Your task to perform on an android device: turn off translation in the chrome app Image 0: 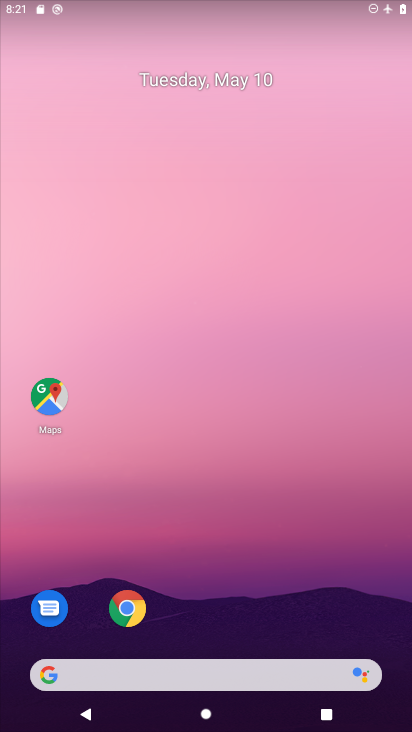
Step 0: drag from (258, 616) to (257, 294)
Your task to perform on an android device: turn off translation in the chrome app Image 1: 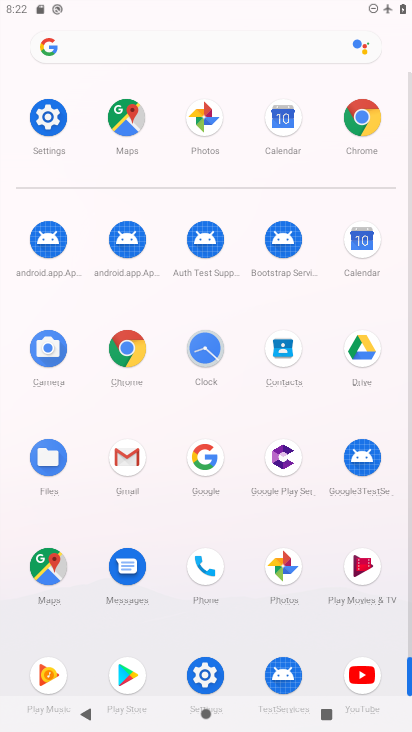
Step 1: click (366, 111)
Your task to perform on an android device: turn off translation in the chrome app Image 2: 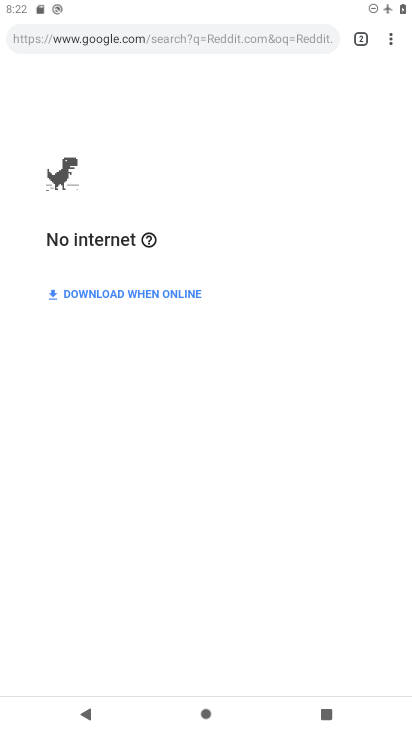
Step 2: click (385, 35)
Your task to perform on an android device: turn off translation in the chrome app Image 3: 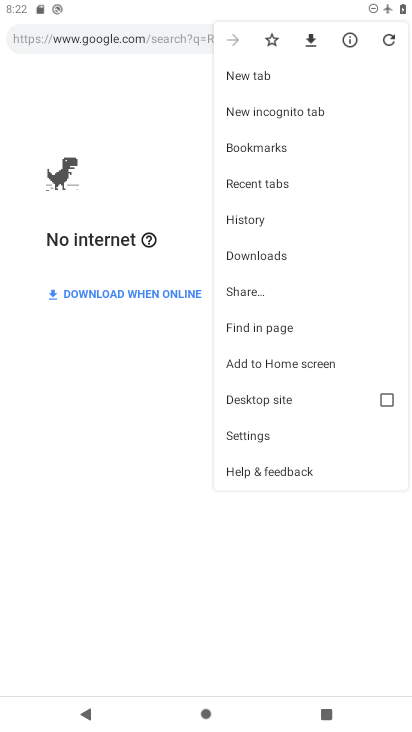
Step 3: click (260, 429)
Your task to perform on an android device: turn off translation in the chrome app Image 4: 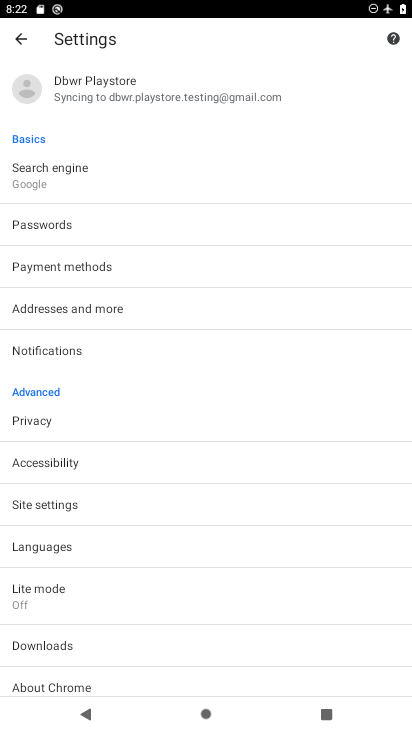
Step 4: click (77, 548)
Your task to perform on an android device: turn off translation in the chrome app Image 5: 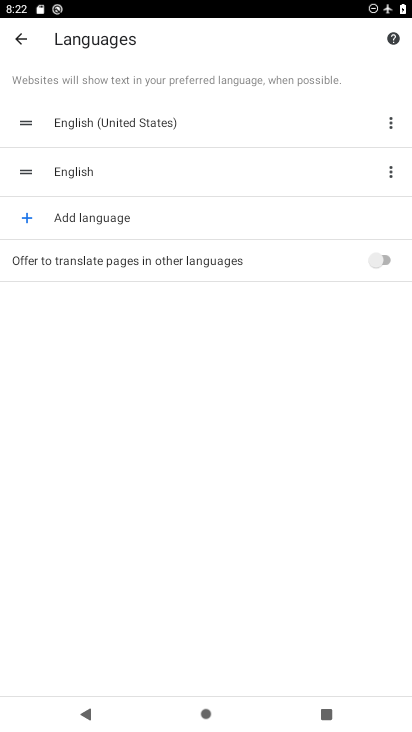
Step 5: task complete